Your task to perform on an android device: What time is it in New York? Image 0: 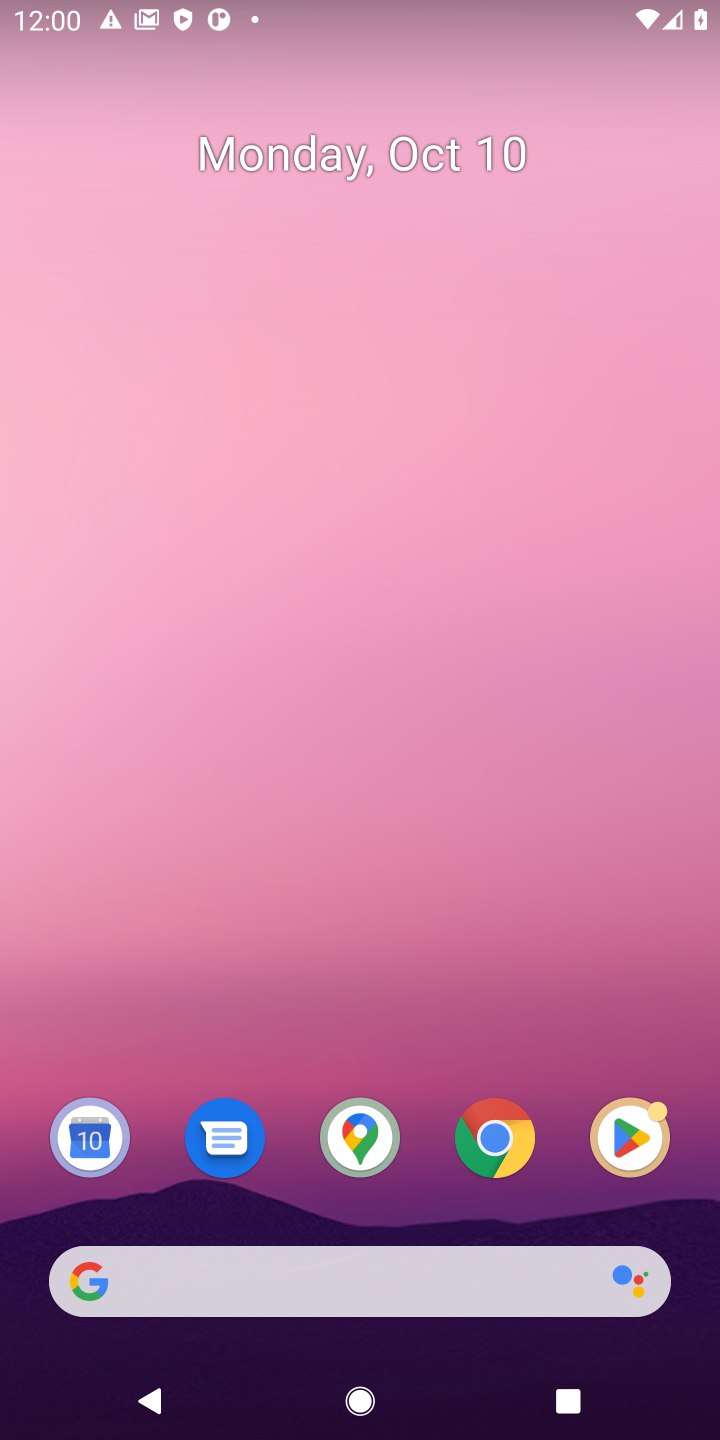
Step 0: drag from (387, 1269) to (391, 187)
Your task to perform on an android device: What time is it in New York? Image 1: 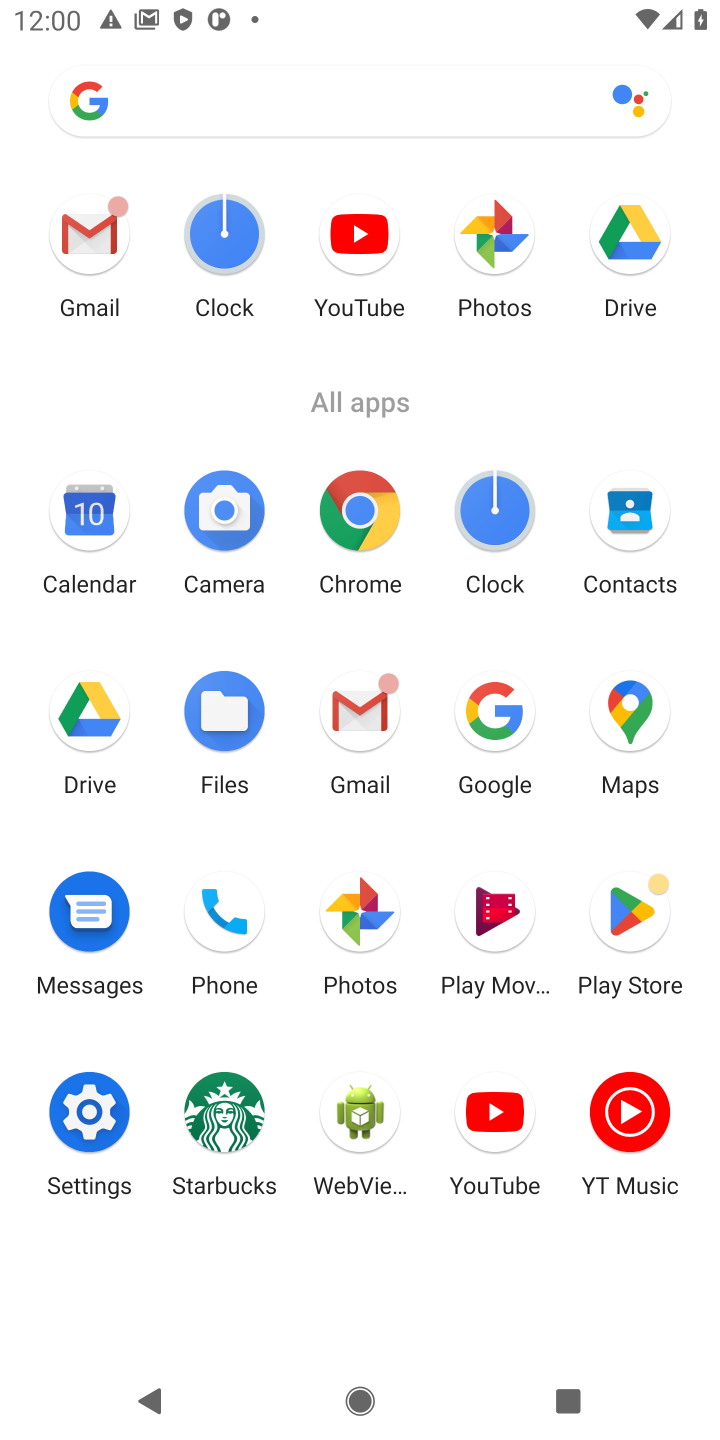
Step 1: click (386, 533)
Your task to perform on an android device: What time is it in New York? Image 2: 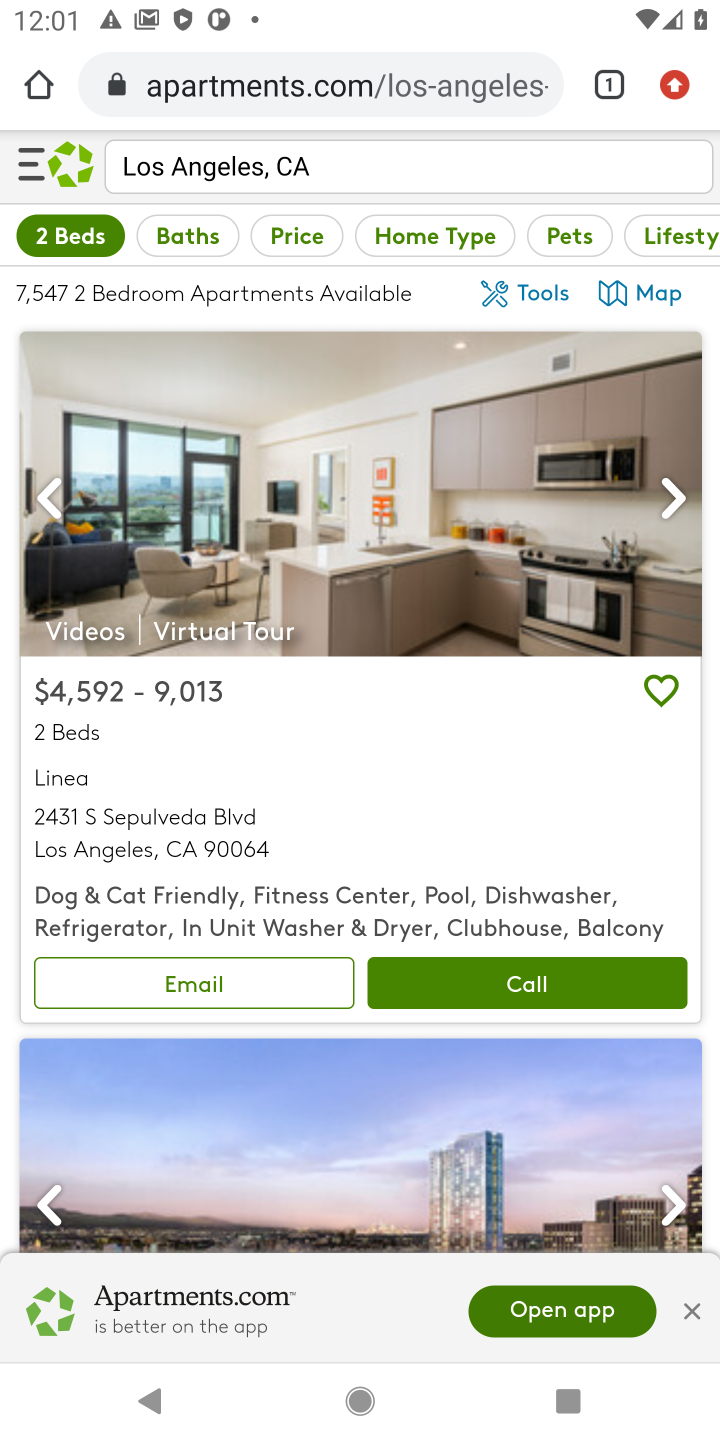
Step 2: press home button
Your task to perform on an android device: What time is it in New York? Image 3: 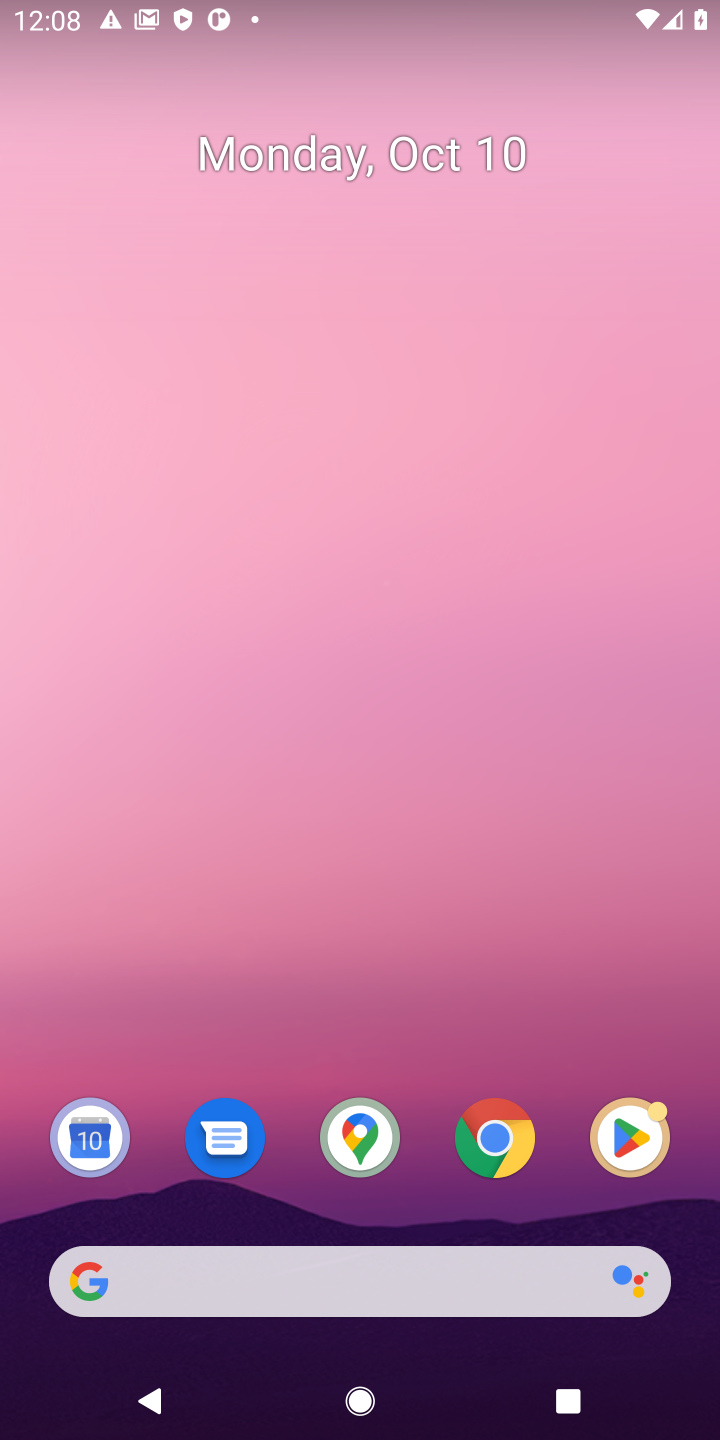
Step 3: click (506, 1150)
Your task to perform on an android device: What time is it in New York? Image 4: 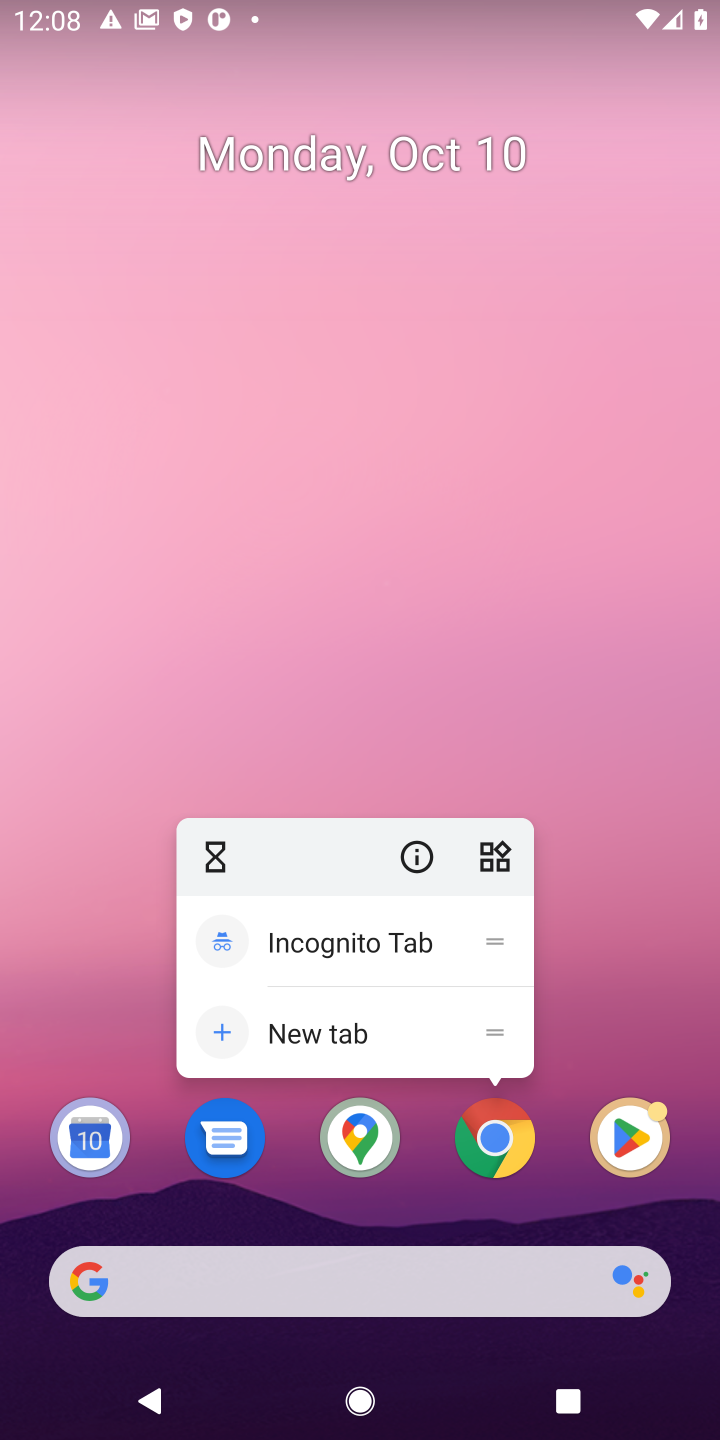
Step 4: click (506, 1150)
Your task to perform on an android device: What time is it in New York? Image 5: 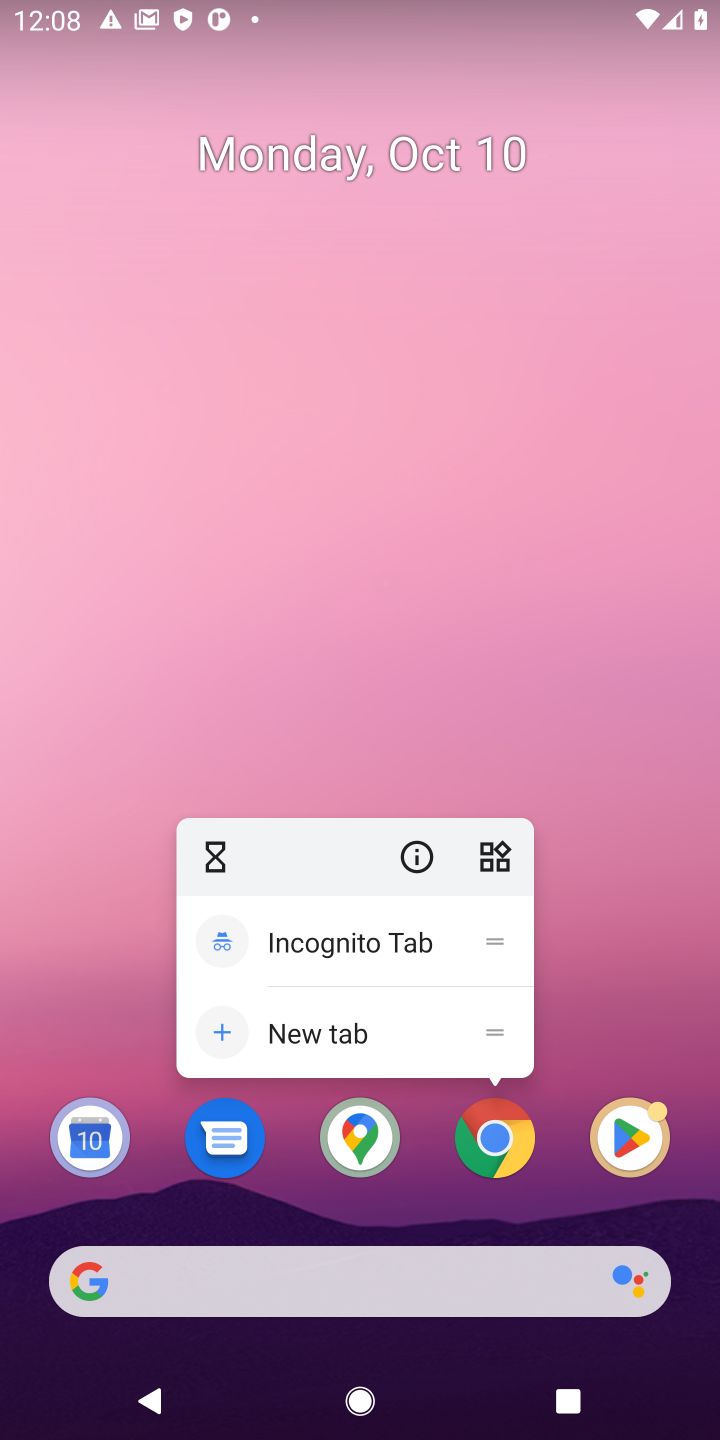
Step 5: click (506, 1150)
Your task to perform on an android device: What time is it in New York? Image 6: 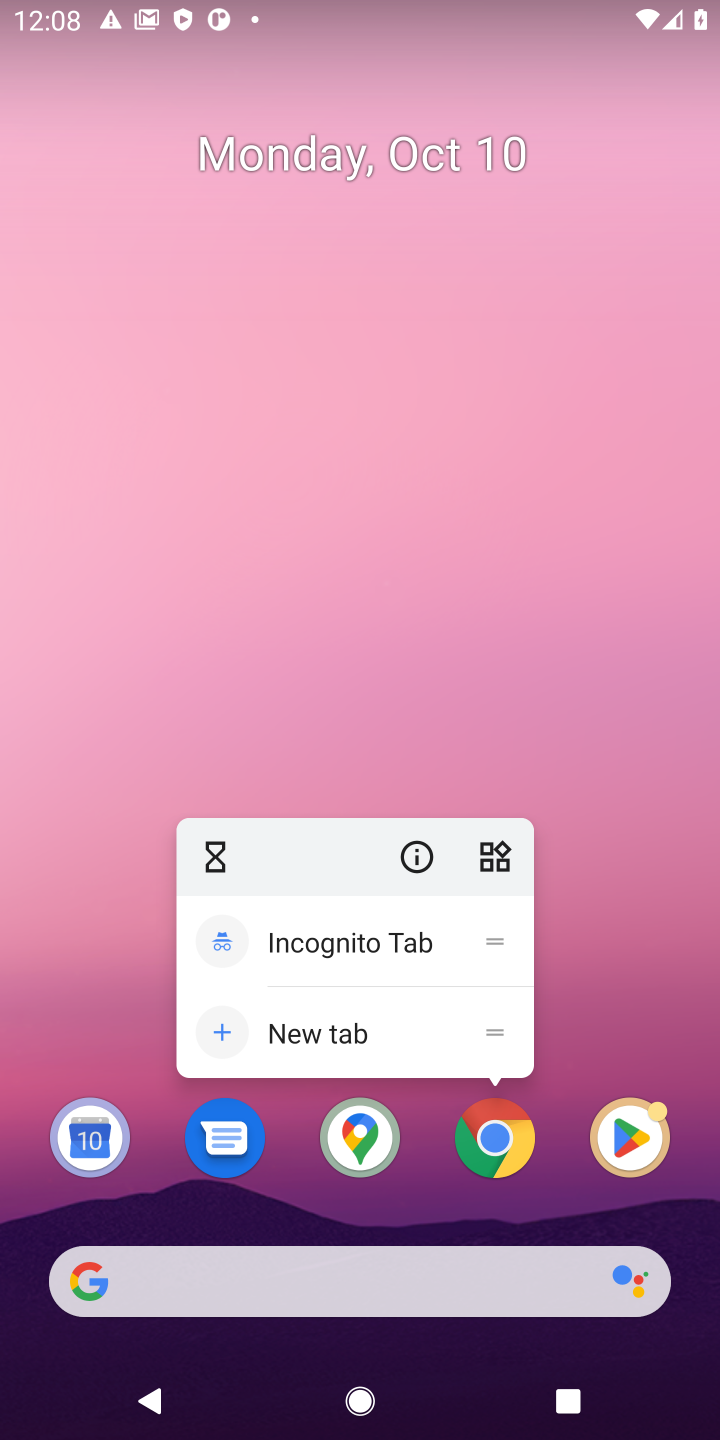
Step 6: click (506, 1150)
Your task to perform on an android device: What time is it in New York? Image 7: 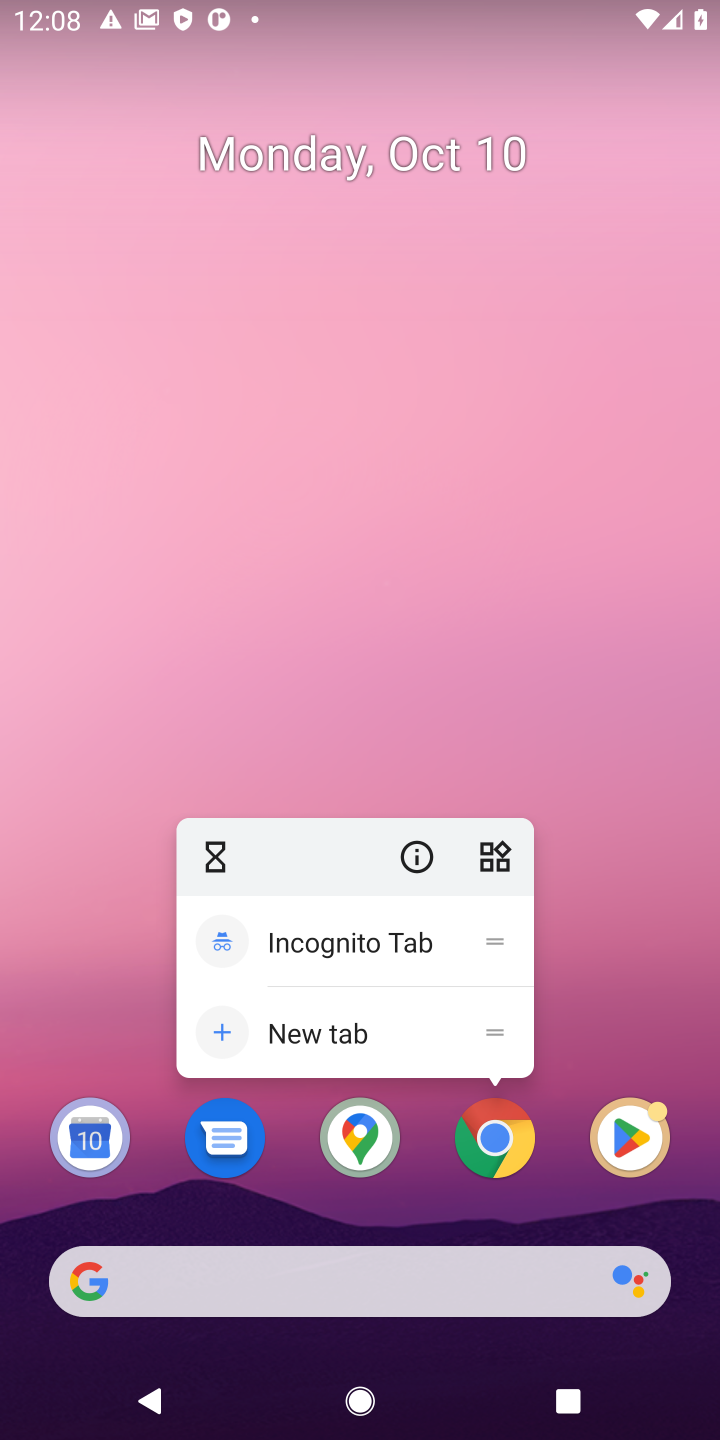
Step 7: click (506, 1150)
Your task to perform on an android device: What time is it in New York? Image 8: 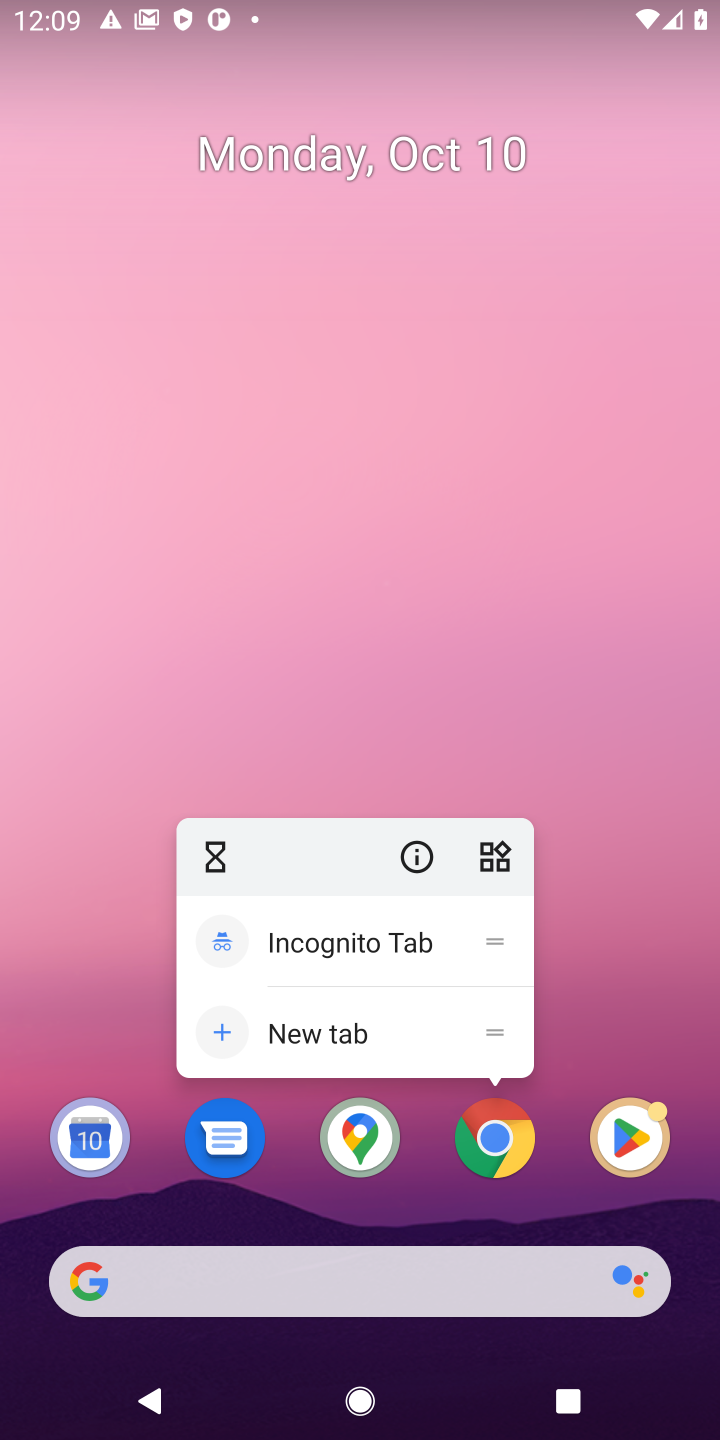
Step 8: click (512, 1150)
Your task to perform on an android device: What time is it in New York? Image 9: 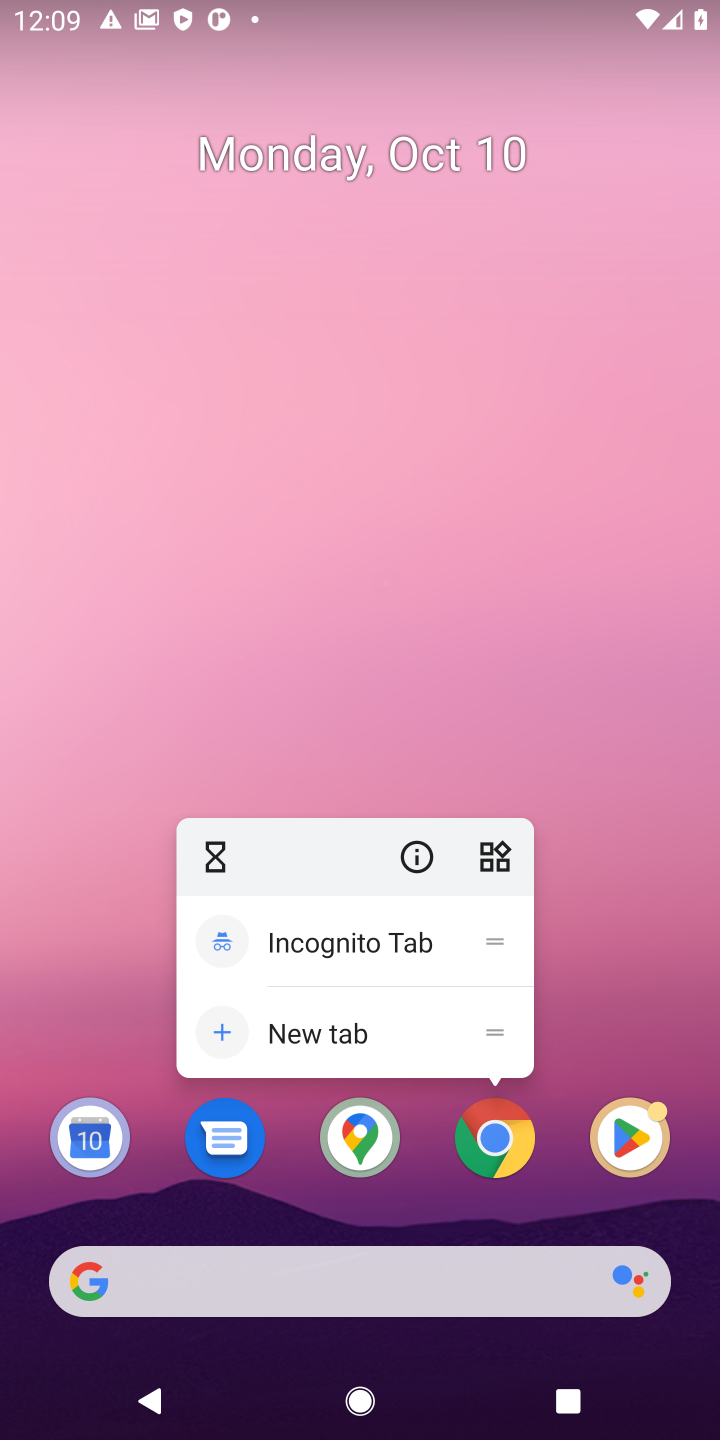
Step 9: click (530, 1135)
Your task to perform on an android device: What time is it in New York? Image 10: 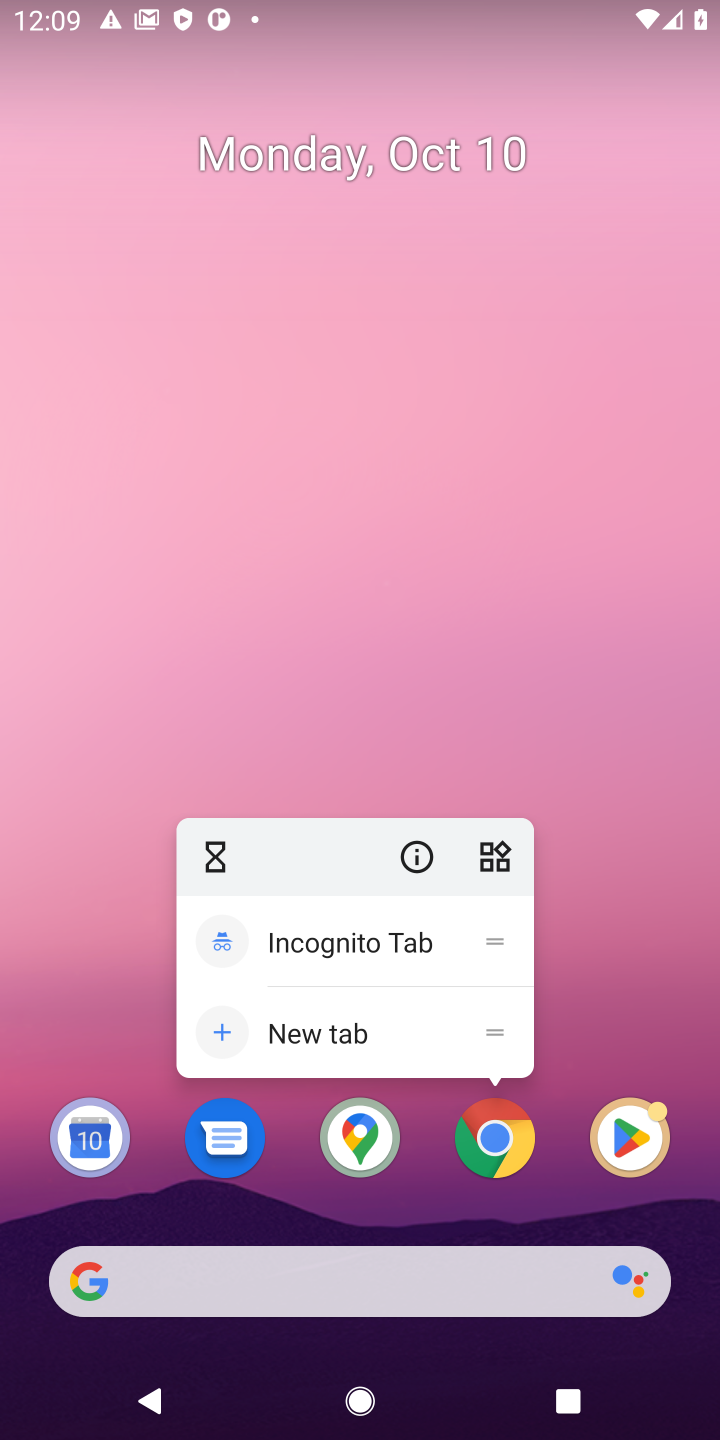
Step 10: click (530, 1135)
Your task to perform on an android device: What time is it in New York? Image 11: 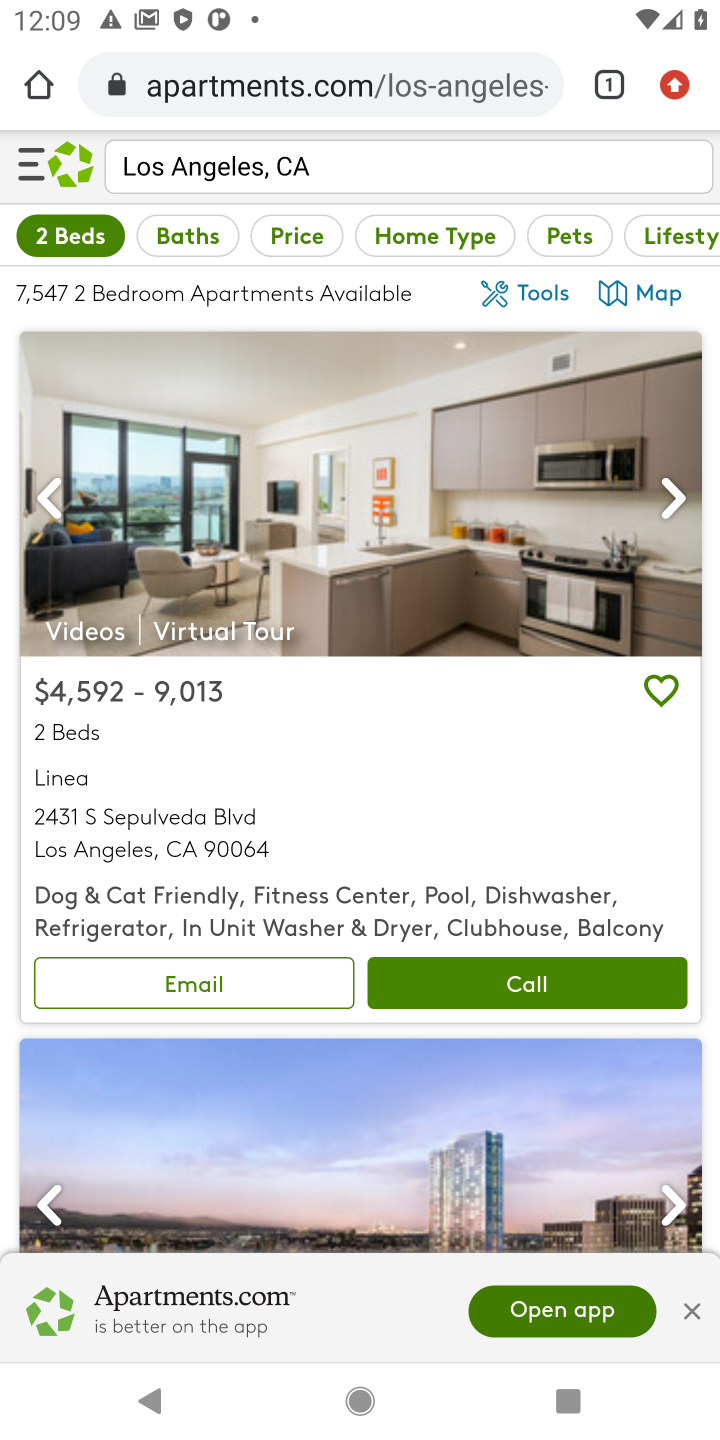
Step 11: click (457, 50)
Your task to perform on an android device: What time is it in New York? Image 12: 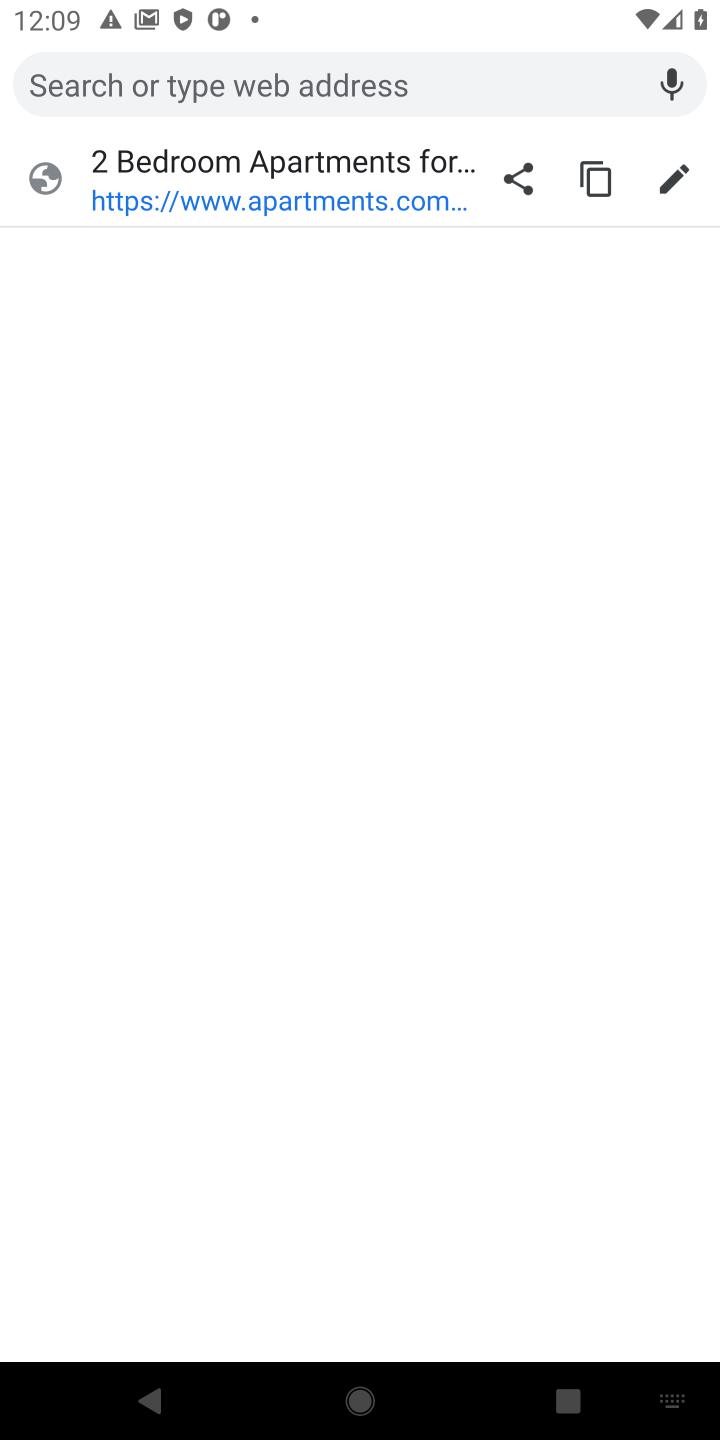
Step 12: type "What time is it in New York?"
Your task to perform on an android device: What time is it in New York? Image 13: 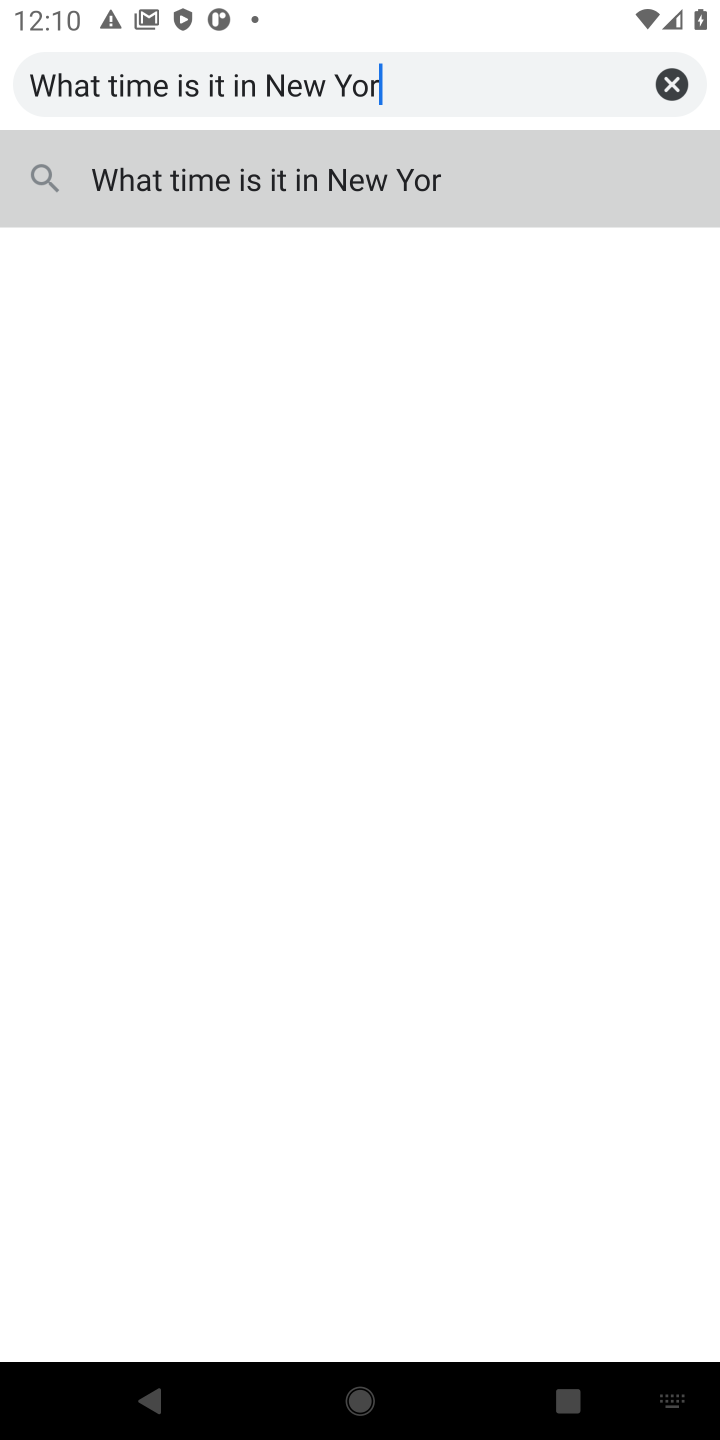
Step 13: type "k?"
Your task to perform on an android device: What time is it in New York? Image 14: 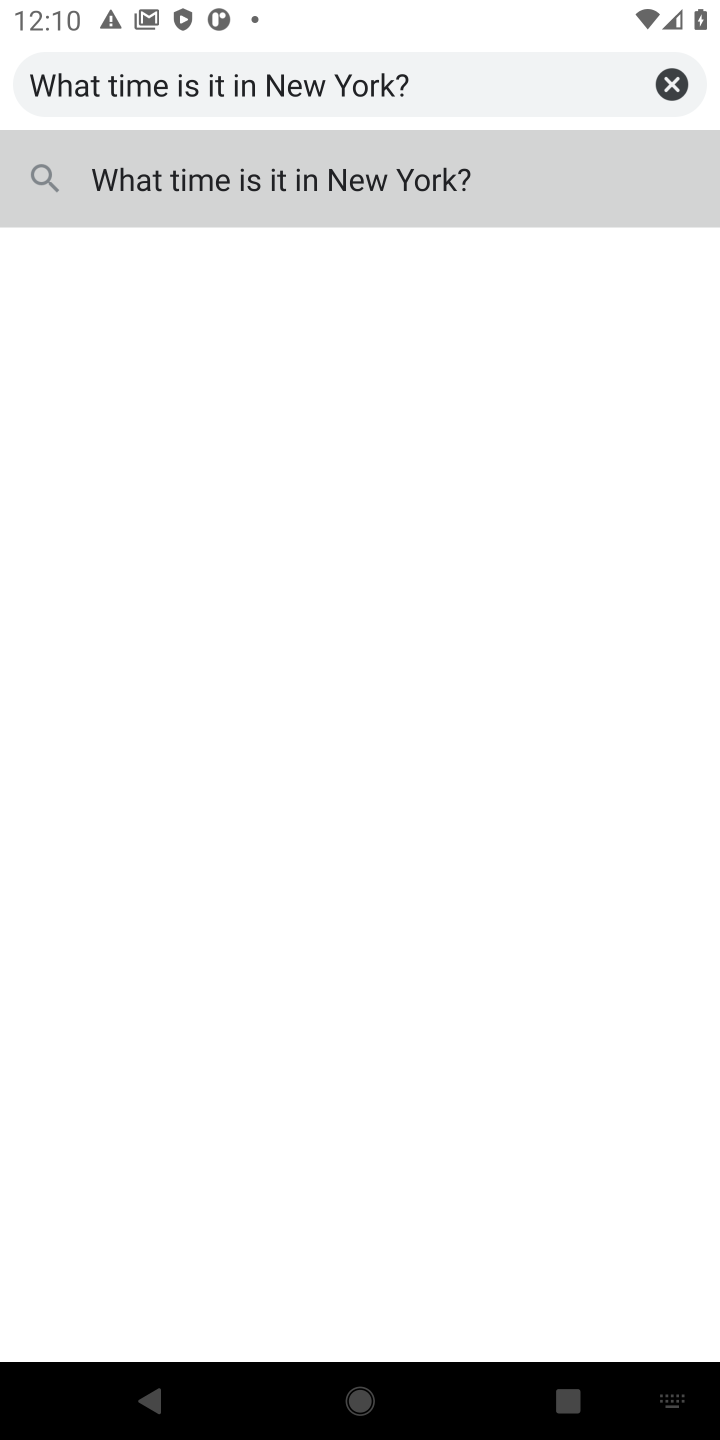
Step 14: press enter
Your task to perform on an android device: What time is it in New York? Image 15: 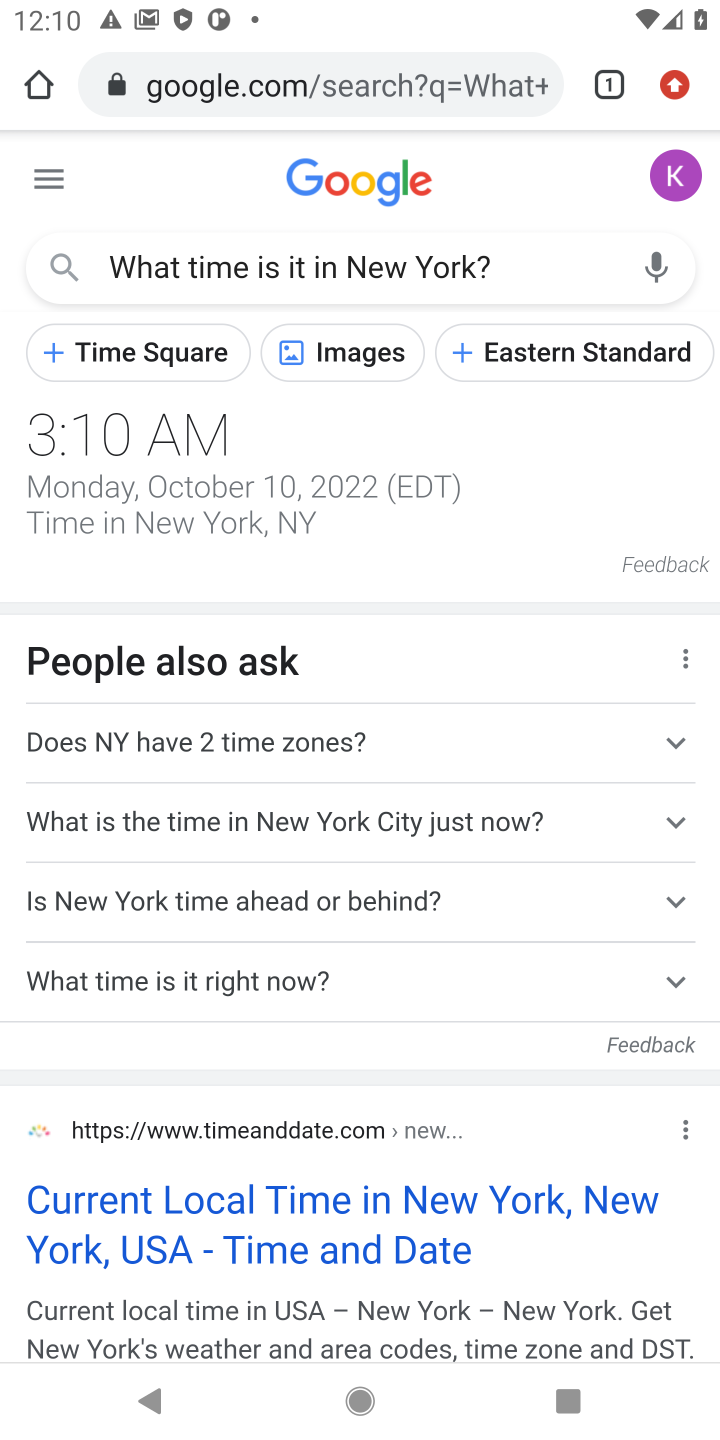
Step 15: task complete